Your task to perform on an android device: toggle sleep mode Image 0: 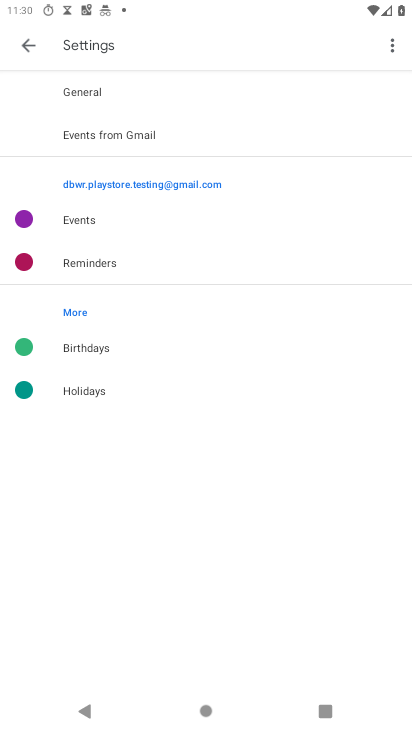
Step 0: press back button
Your task to perform on an android device: toggle sleep mode Image 1: 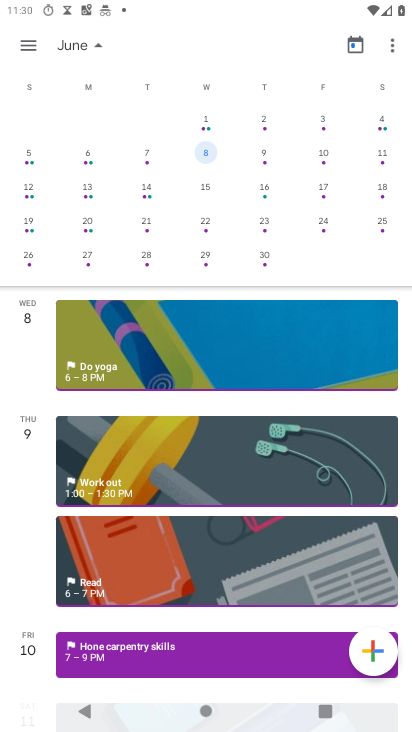
Step 1: press home button
Your task to perform on an android device: toggle sleep mode Image 2: 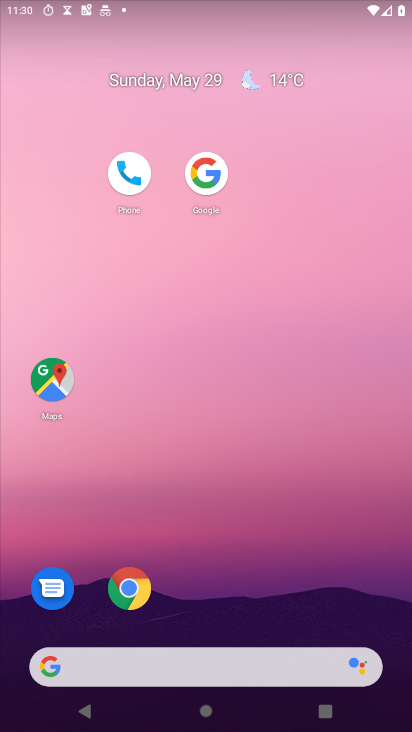
Step 2: press home button
Your task to perform on an android device: toggle sleep mode Image 3: 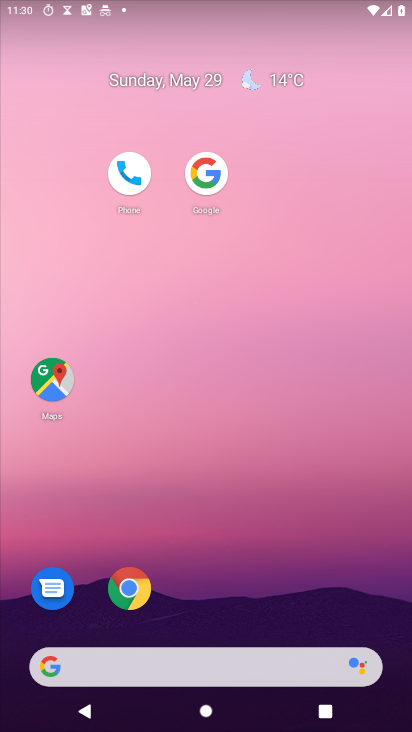
Step 3: drag from (254, 596) to (219, 133)
Your task to perform on an android device: toggle sleep mode Image 4: 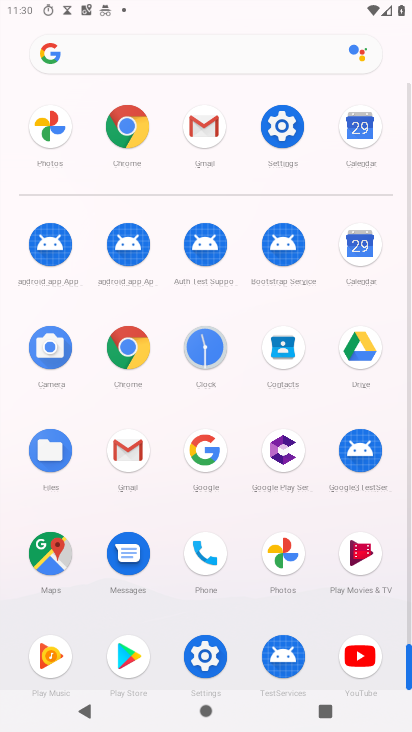
Step 4: click (274, 124)
Your task to perform on an android device: toggle sleep mode Image 5: 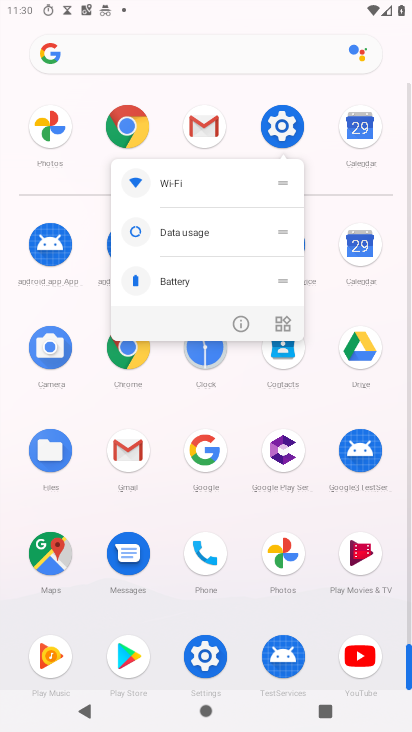
Step 5: click (293, 114)
Your task to perform on an android device: toggle sleep mode Image 6: 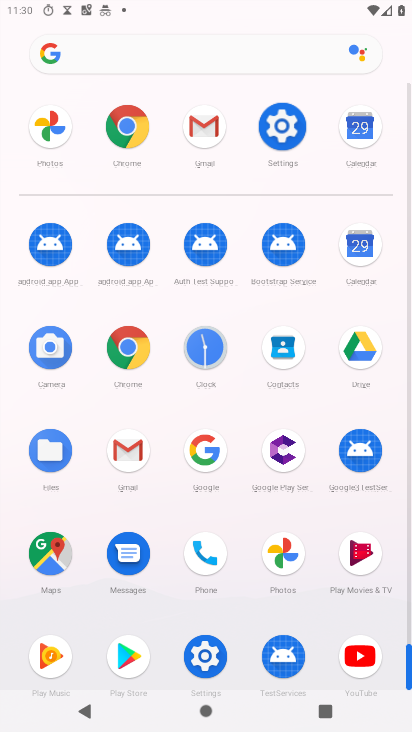
Step 6: click (293, 114)
Your task to perform on an android device: toggle sleep mode Image 7: 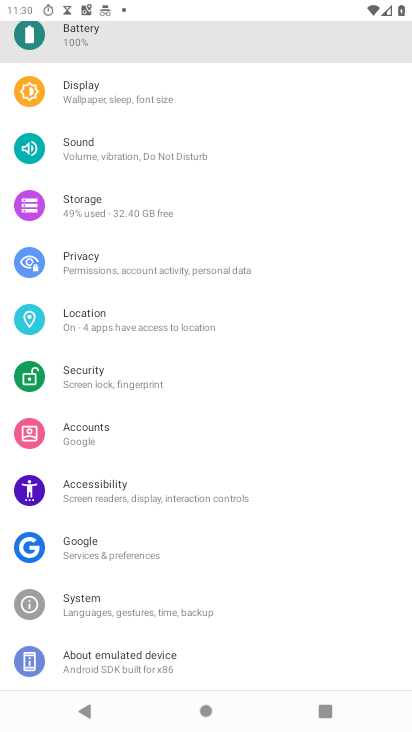
Step 7: click (304, 111)
Your task to perform on an android device: toggle sleep mode Image 8: 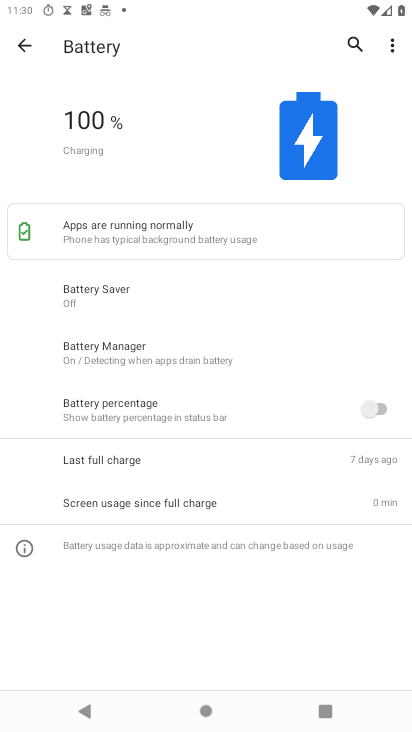
Step 8: click (19, 42)
Your task to perform on an android device: toggle sleep mode Image 9: 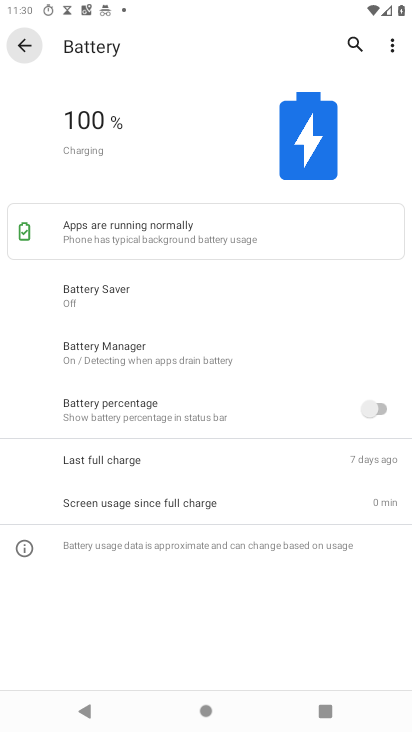
Step 9: click (23, 38)
Your task to perform on an android device: toggle sleep mode Image 10: 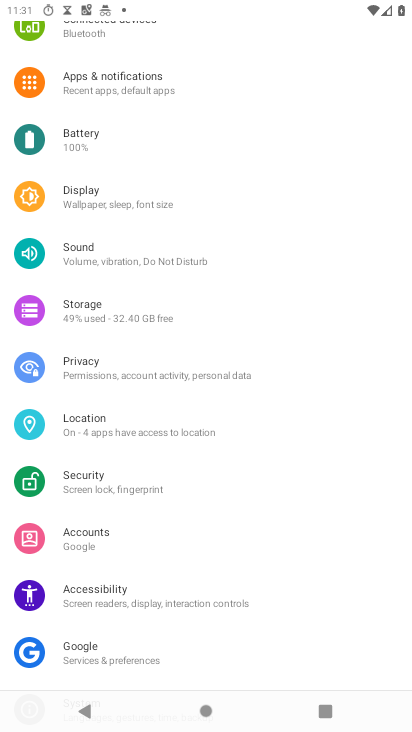
Step 10: press back button
Your task to perform on an android device: toggle sleep mode Image 11: 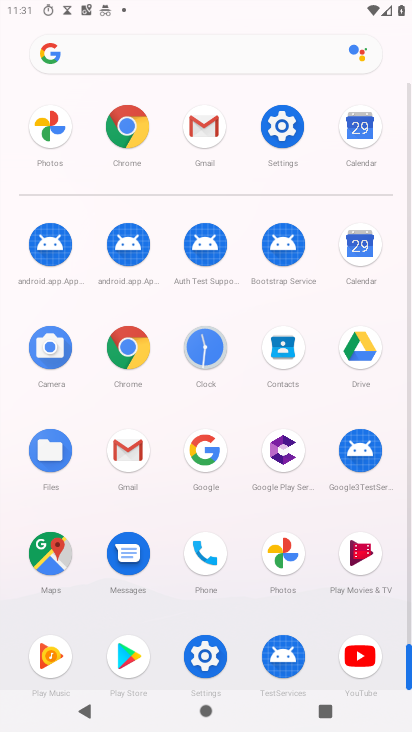
Step 11: click (274, 123)
Your task to perform on an android device: toggle sleep mode Image 12: 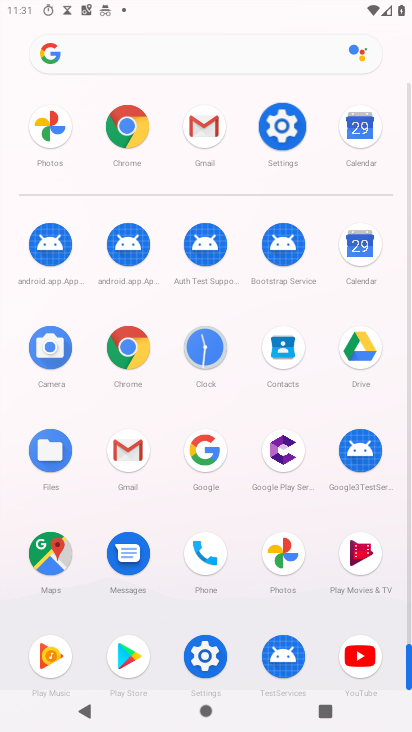
Step 12: click (277, 122)
Your task to perform on an android device: toggle sleep mode Image 13: 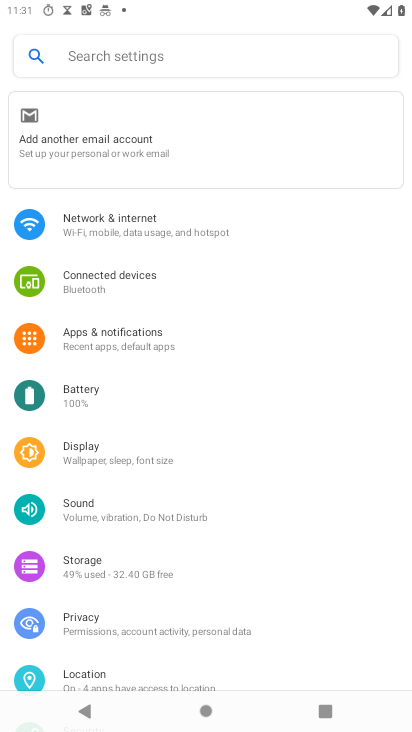
Step 13: click (97, 457)
Your task to perform on an android device: toggle sleep mode Image 14: 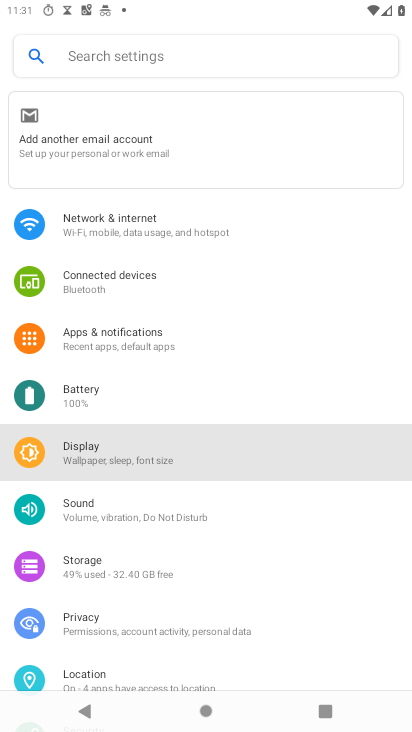
Step 14: click (97, 457)
Your task to perform on an android device: toggle sleep mode Image 15: 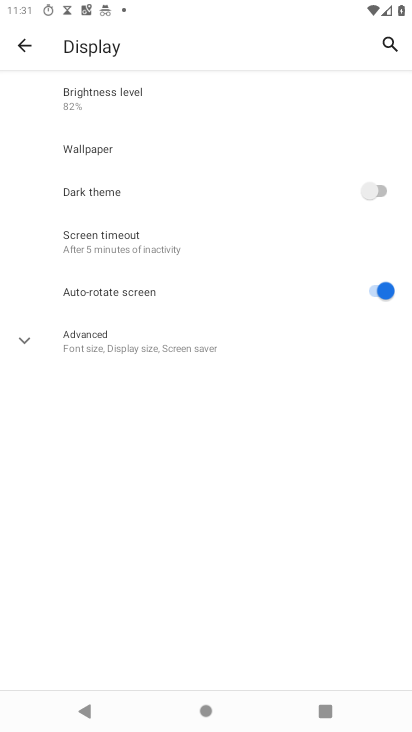
Step 15: click (99, 244)
Your task to perform on an android device: toggle sleep mode Image 16: 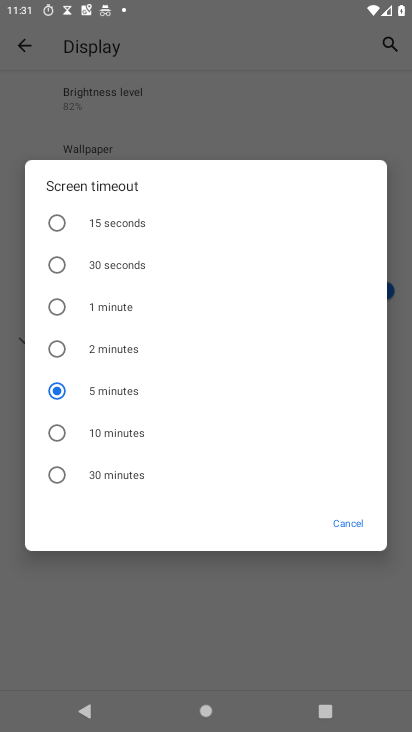
Step 16: click (110, 249)
Your task to perform on an android device: toggle sleep mode Image 17: 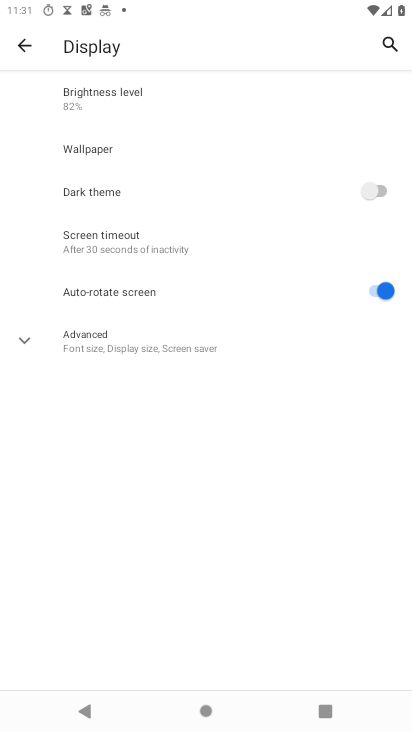
Step 17: click (97, 252)
Your task to perform on an android device: toggle sleep mode Image 18: 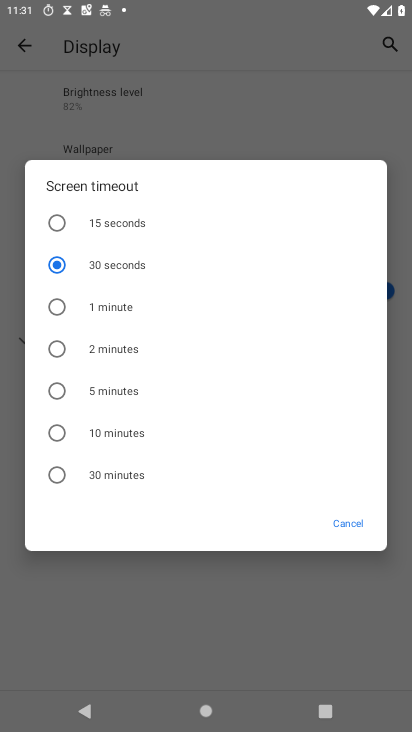
Step 18: click (48, 465)
Your task to perform on an android device: toggle sleep mode Image 19: 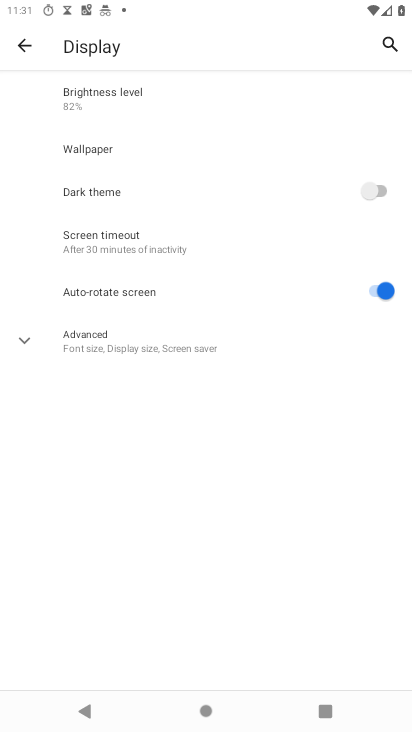
Step 19: task complete